Your task to perform on an android device: Set an alarm for 6pm Image 0: 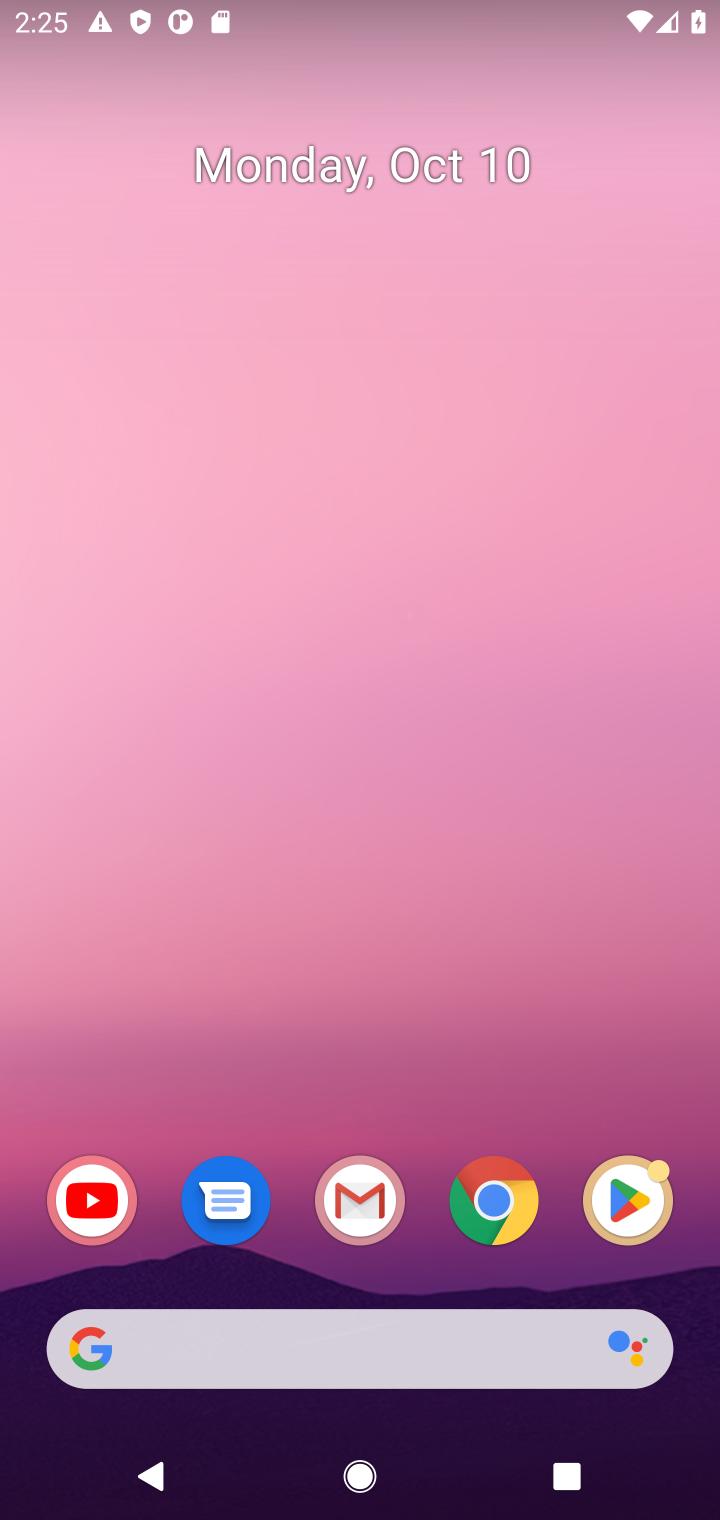
Step 0: drag from (467, 1095) to (517, 396)
Your task to perform on an android device: Set an alarm for 6pm Image 1: 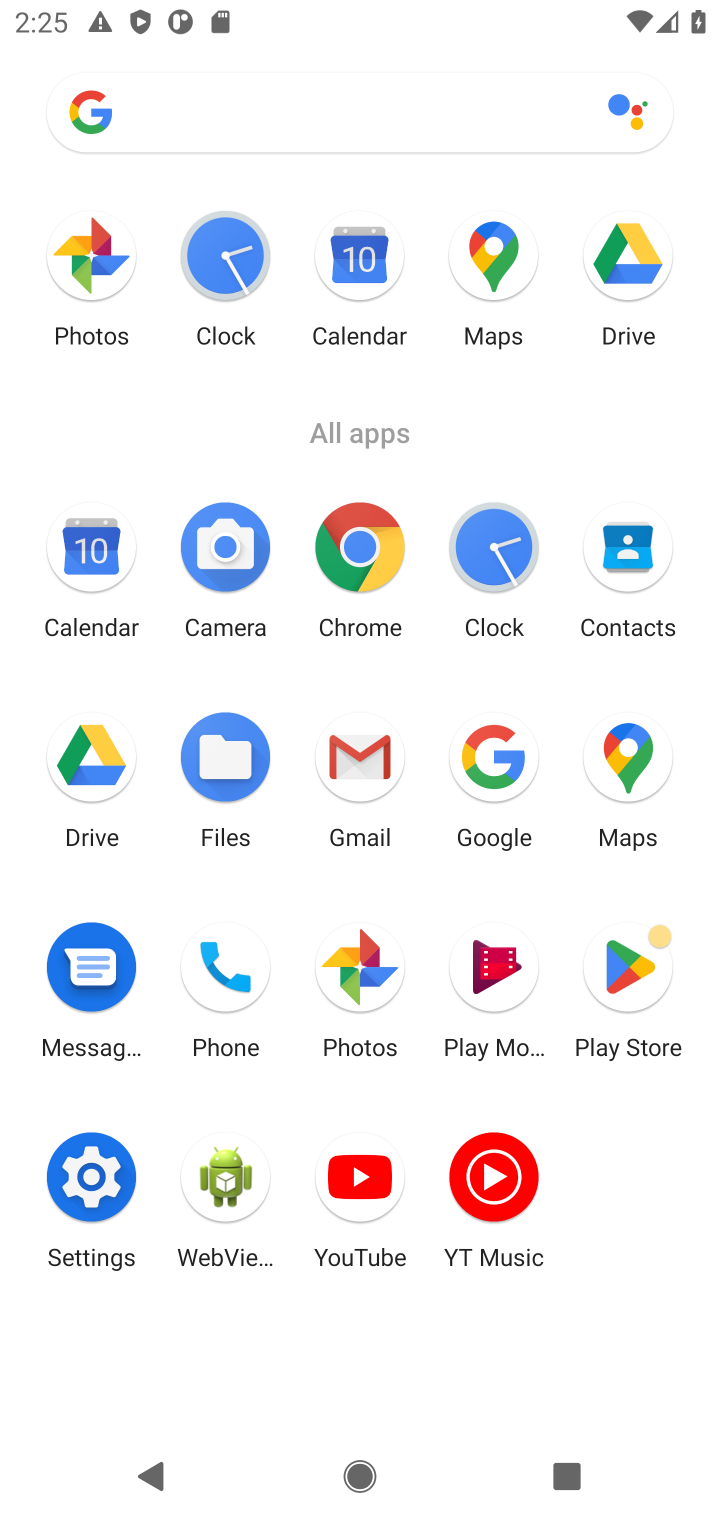
Step 1: click (234, 302)
Your task to perform on an android device: Set an alarm for 6pm Image 2: 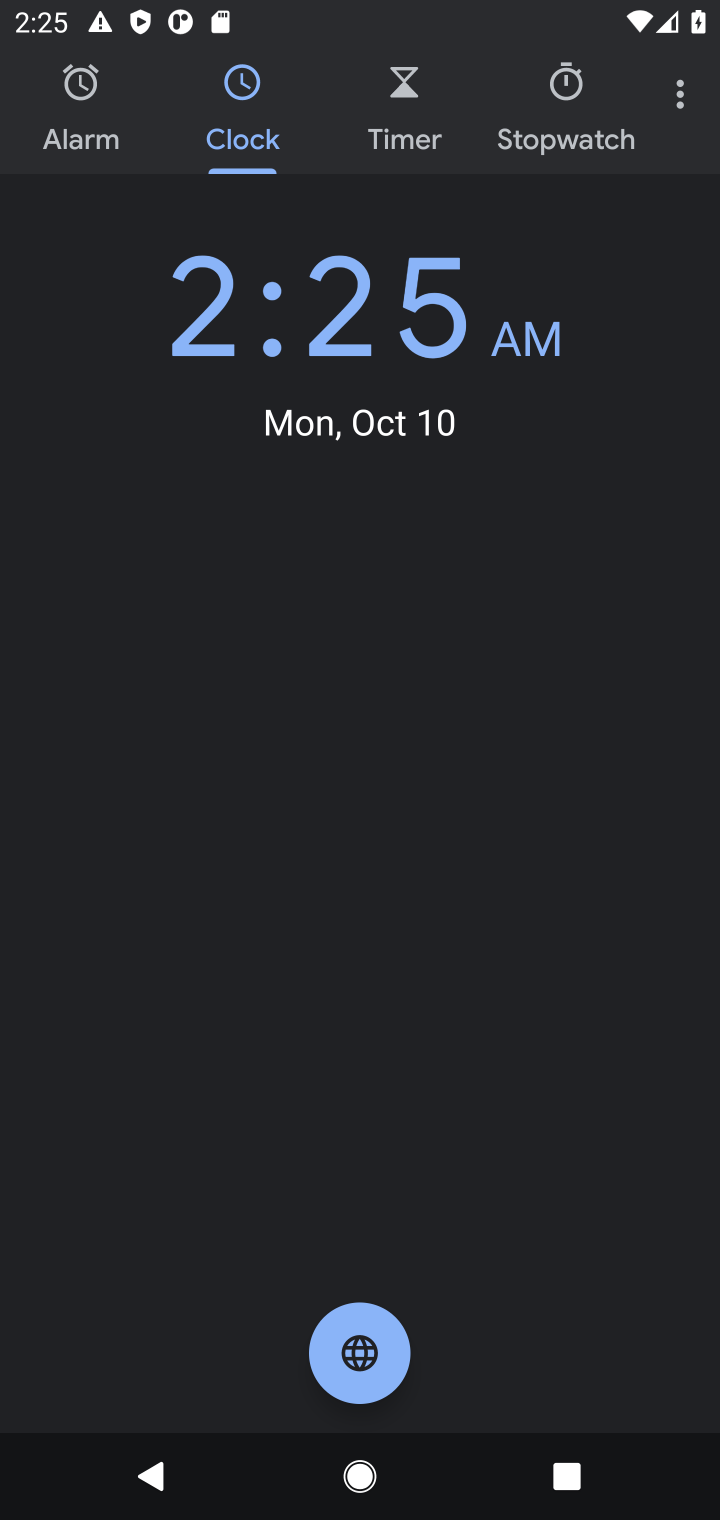
Step 2: click (82, 124)
Your task to perform on an android device: Set an alarm for 6pm Image 3: 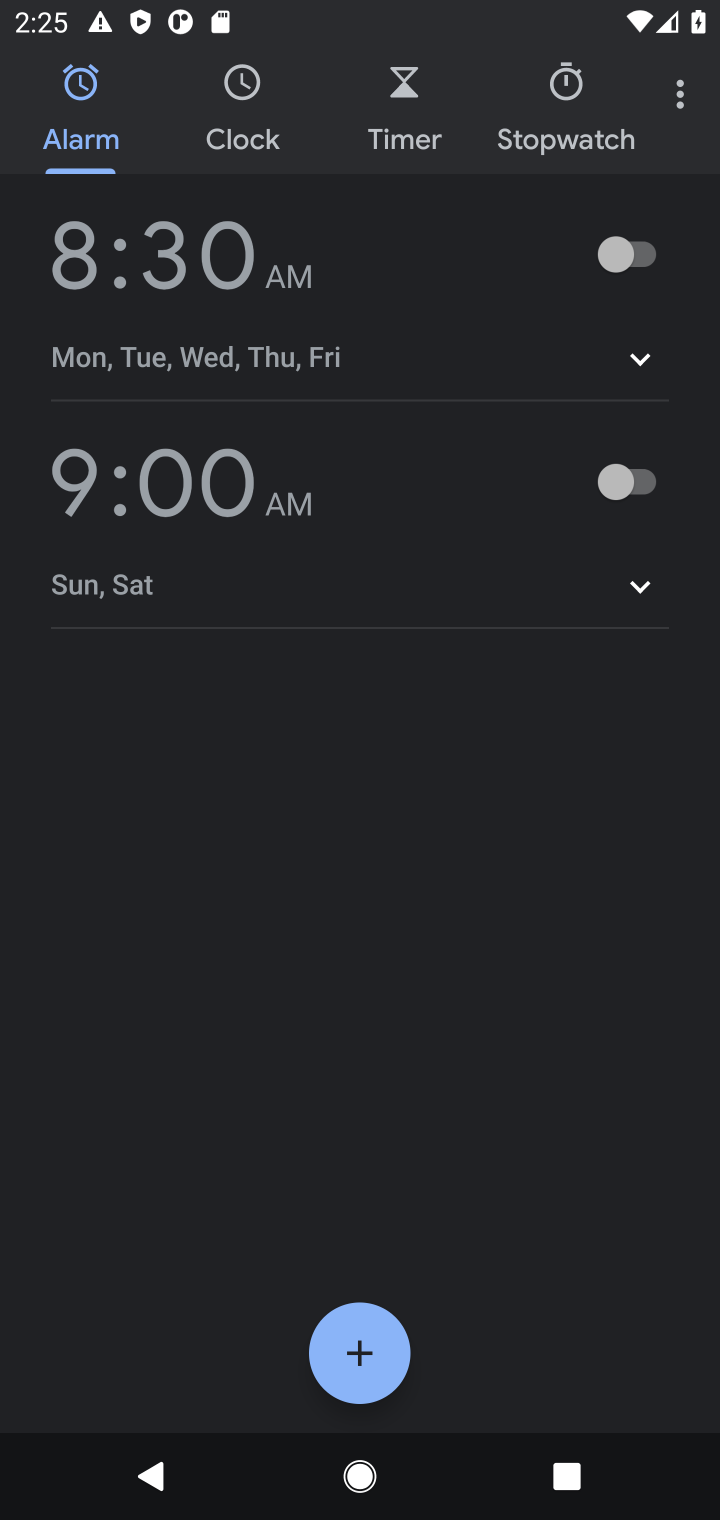
Step 3: click (363, 1355)
Your task to perform on an android device: Set an alarm for 6pm Image 4: 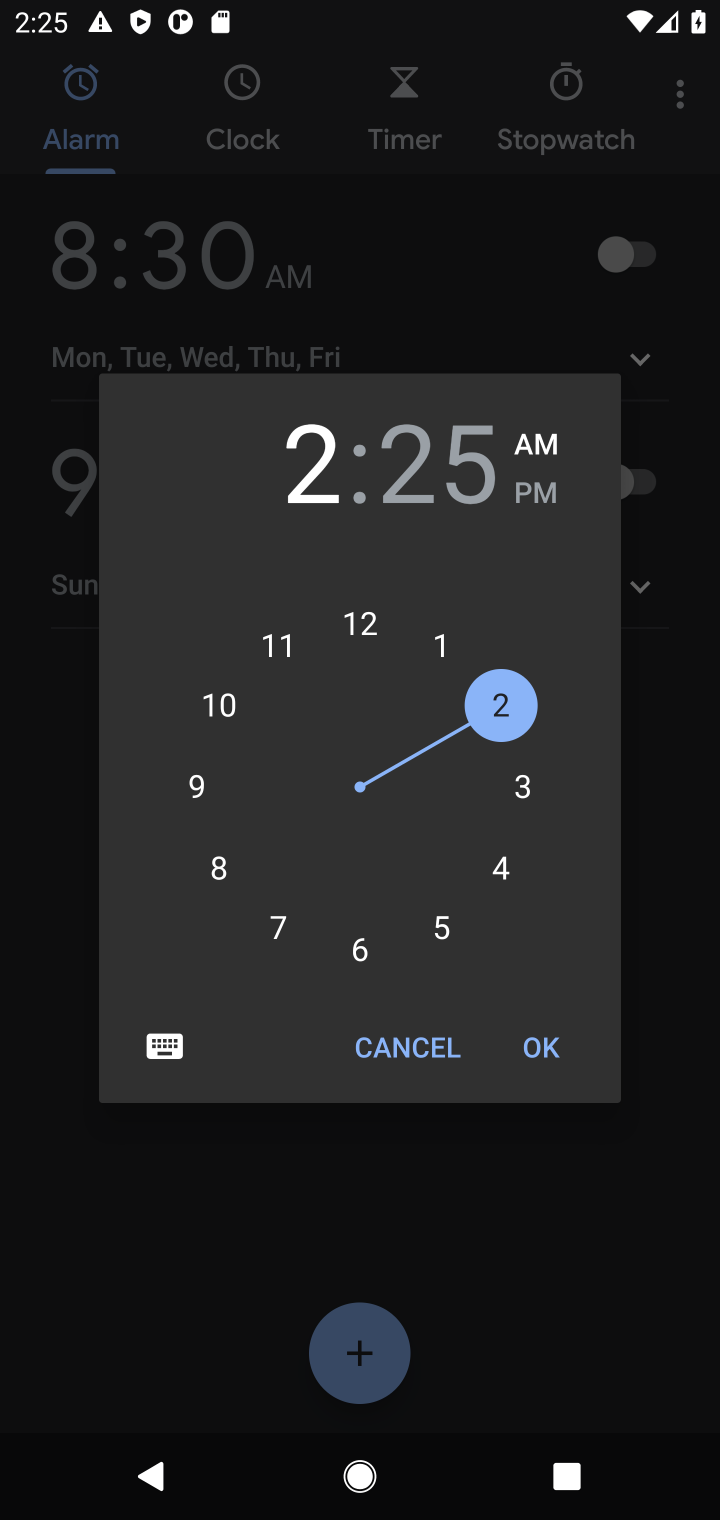
Step 4: click (524, 496)
Your task to perform on an android device: Set an alarm for 6pm Image 5: 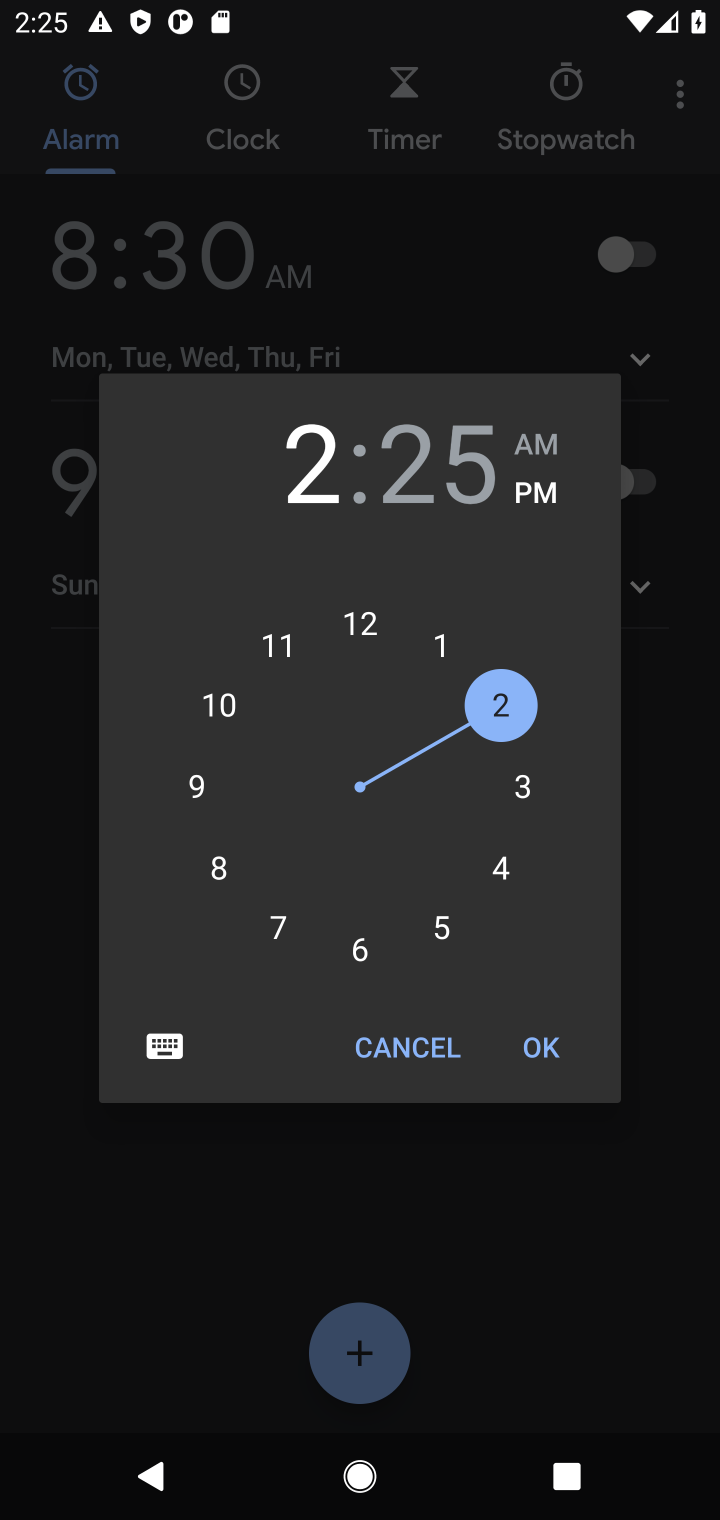
Step 5: click (364, 945)
Your task to perform on an android device: Set an alarm for 6pm Image 6: 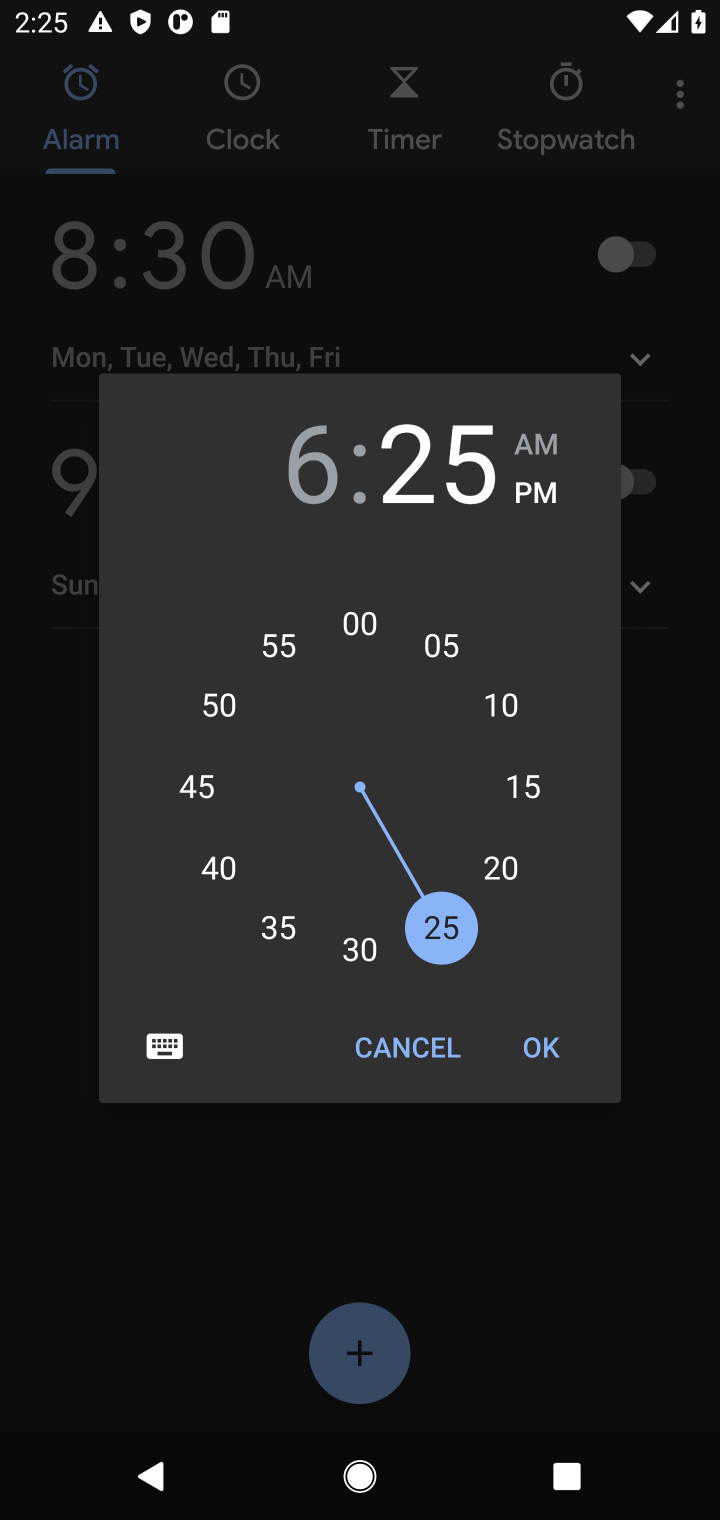
Step 6: click (354, 632)
Your task to perform on an android device: Set an alarm for 6pm Image 7: 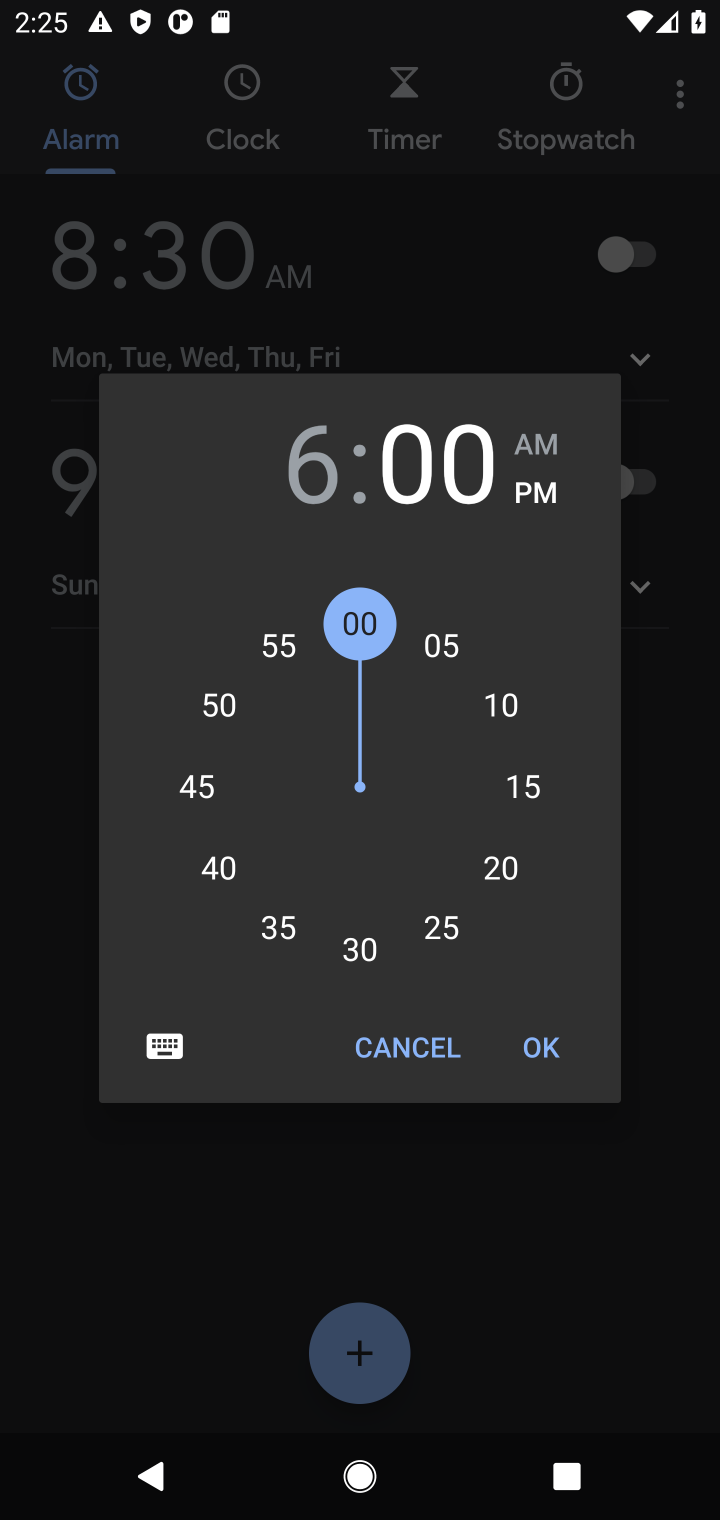
Step 7: click (544, 1049)
Your task to perform on an android device: Set an alarm for 6pm Image 8: 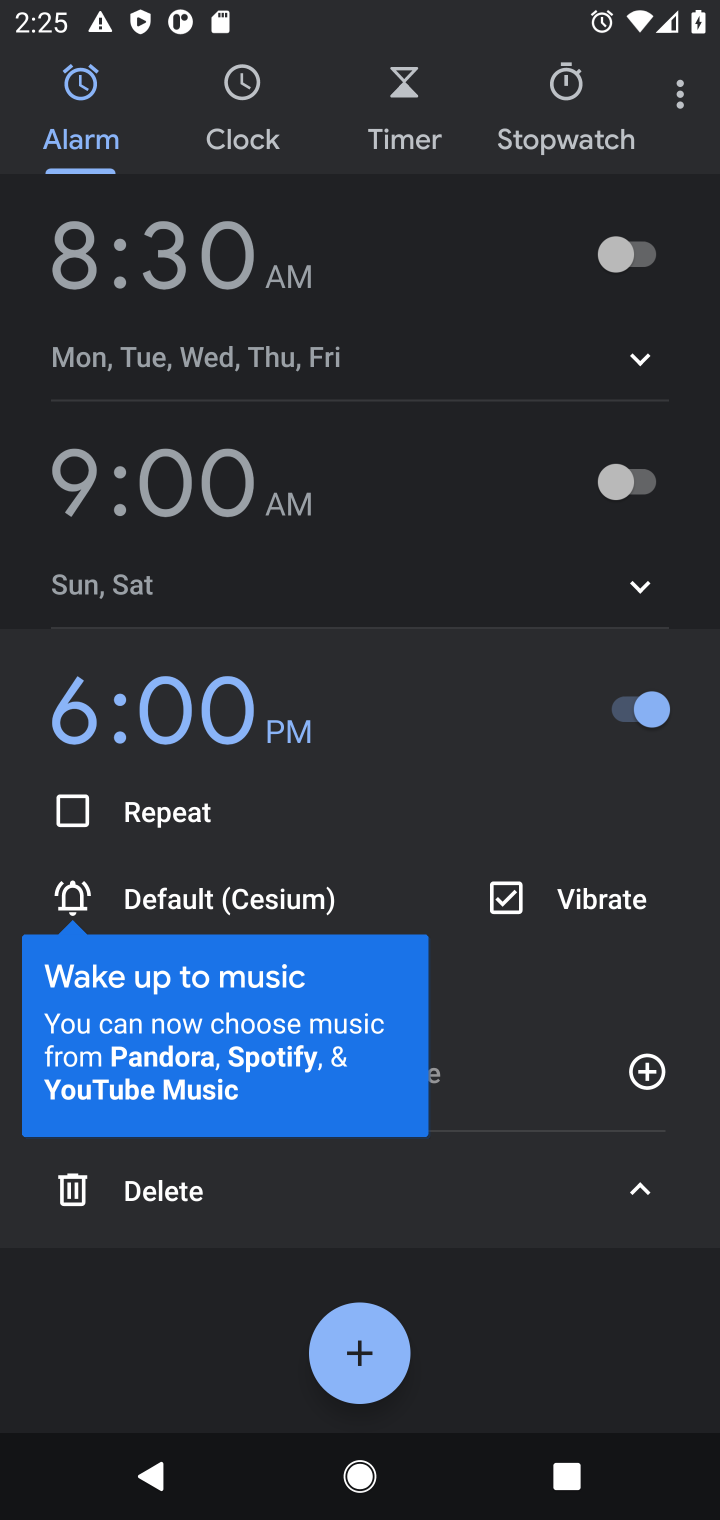
Step 8: task complete